Your task to perform on an android device: Open the calendar and show me this week's events? Image 0: 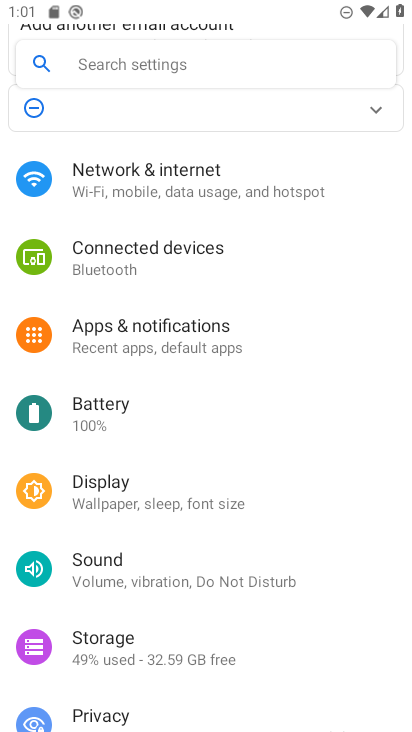
Step 0: press home button
Your task to perform on an android device: Open the calendar and show me this week's events? Image 1: 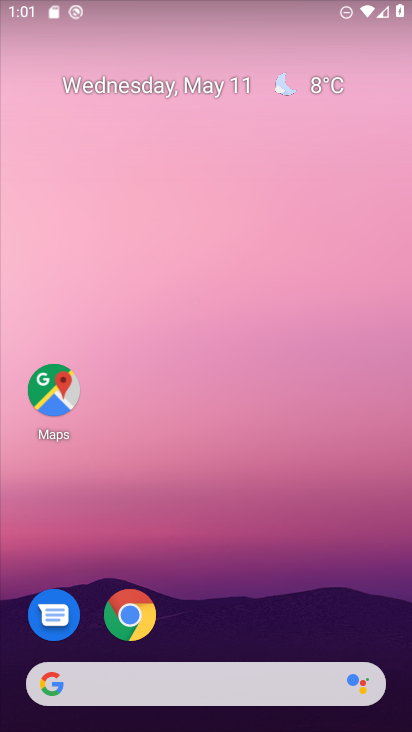
Step 1: drag from (277, 558) to (320, 69)
Your task to perform on an android device: Open the calendar and show me this week's events? Image 2: 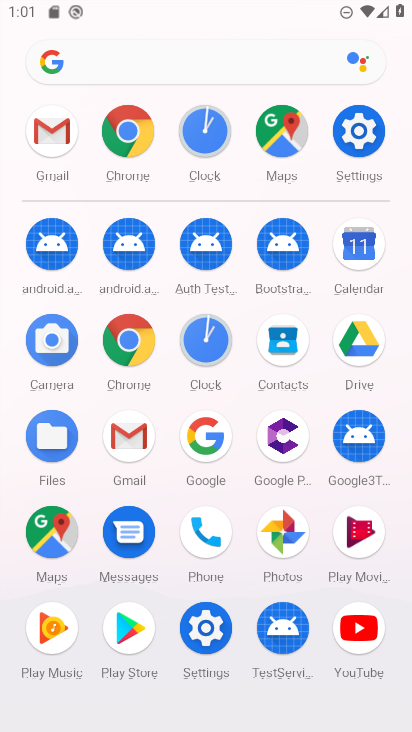
Step 2: click (348, 262)
Your task to perform on an android device: Open the calendar and show me this week's events? Image 3: 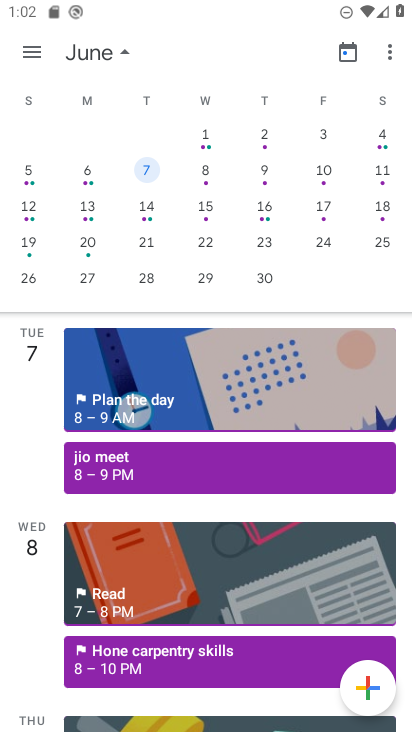
Step 3: click (215, 178)
Your task to perform on an android device: Open the calendar and show me this week's events? Image 4: 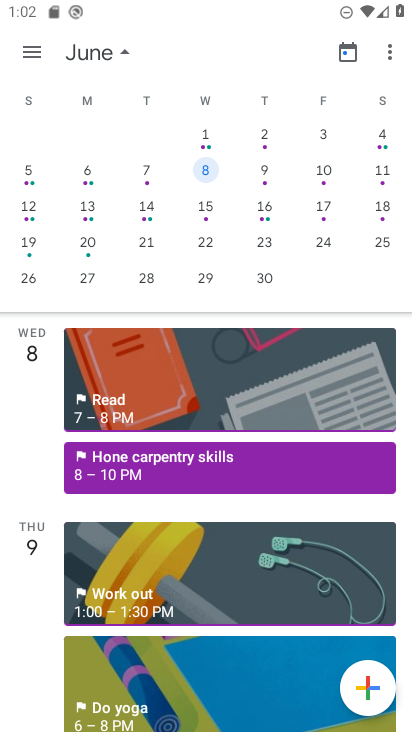
Step 4: task complete